Your task to perform on an android device: turn on improve location accuracy Image 0: 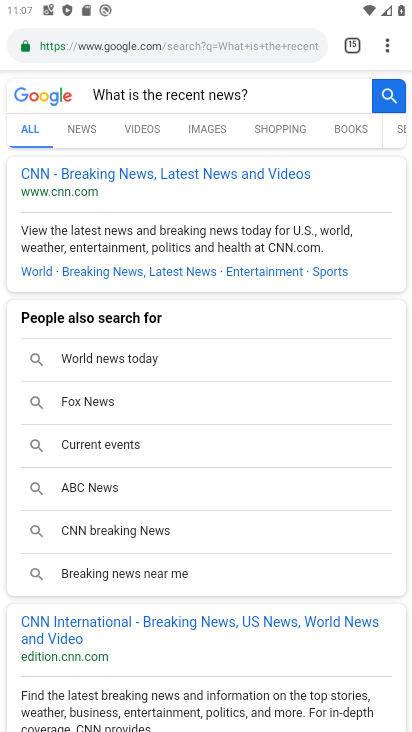
Step 0: press home button
Your task to perform on an android device: turn on improve location accuracy Image 1: 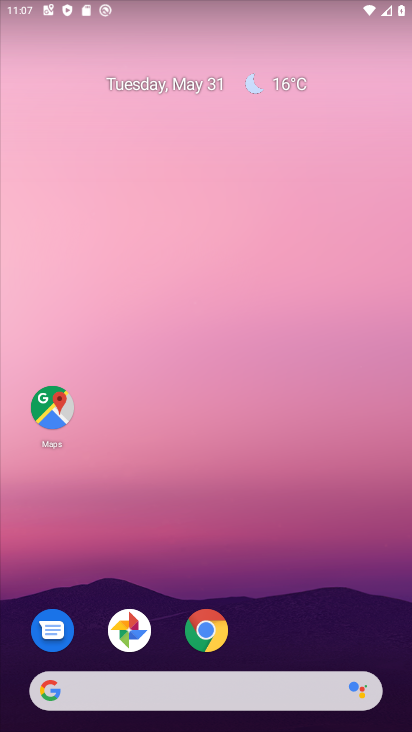
Step 1: drag from (293, 627) to (323, 201)
Your task to perform on an android device: turn on improve location accuracy Image 2: 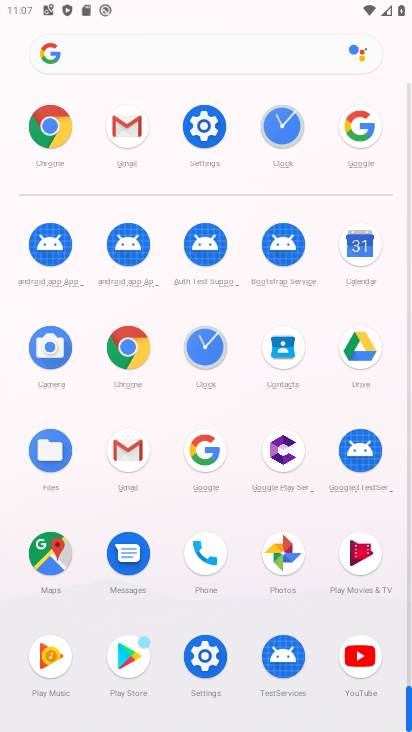
Step 2: click (196, 120)
Your task to perform on an android device: turn on improve location accuracy Image 3: 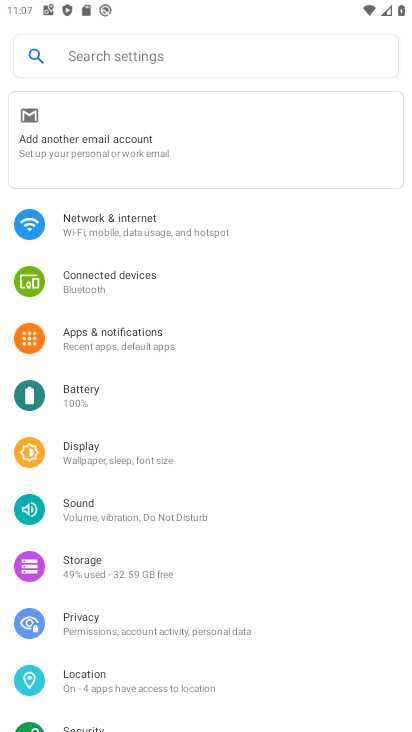
Step 3: drag from (127, 628) to (135, 462)
Your task to perform on an android device: turn on improve location accuracy Image 4: 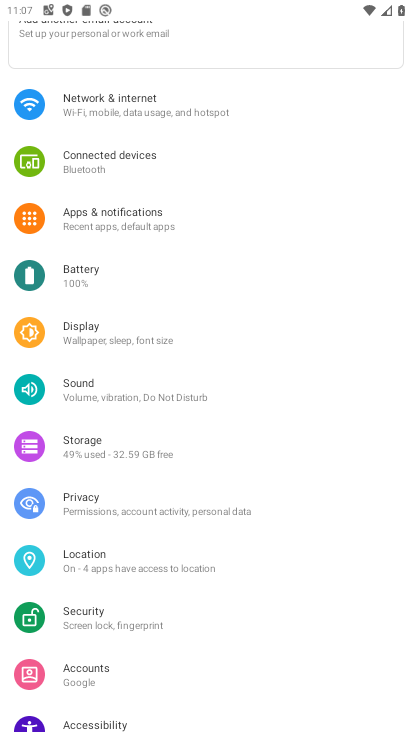
Step 4: click (106, 555)
Your task to perform on an android device: turn on improve location accuracy Image 5: 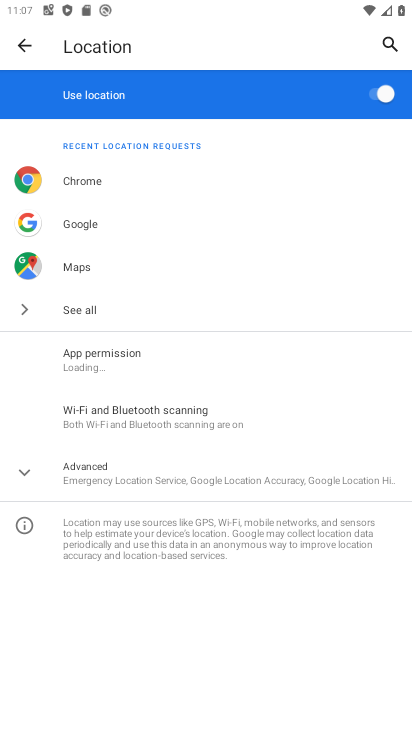
Step 5: click (135, 471)
Your task to perform on an android device: turn on improve location accuracy Image 6: 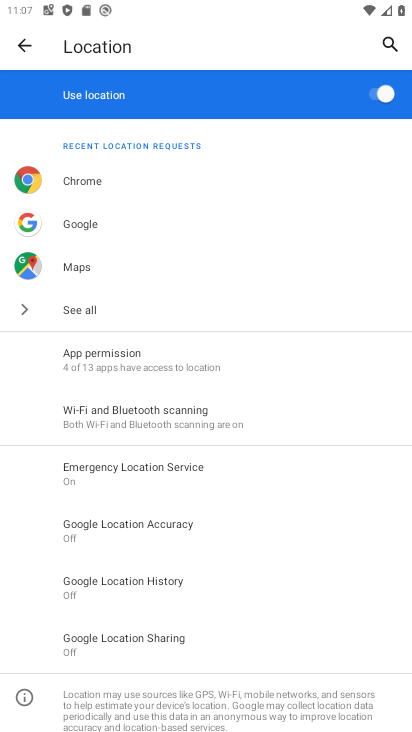
Step 6: click (179, 534)
Your task to perform on an android device: turn on improve location accuracy Image 7: 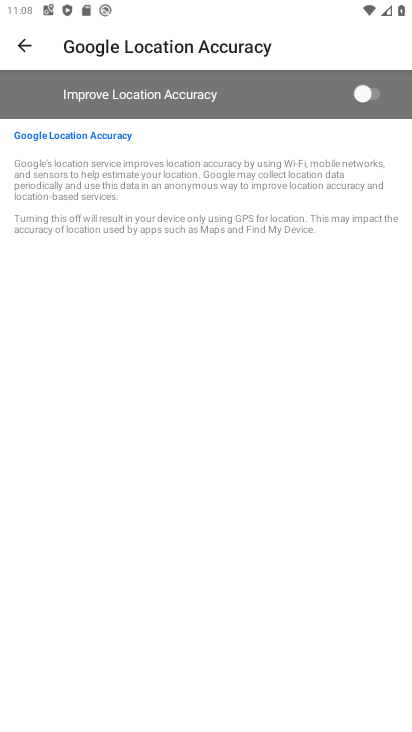
Step 7: click (362, 89)
Your task to perform on an android device: turn on improve location accuracy Image 8: 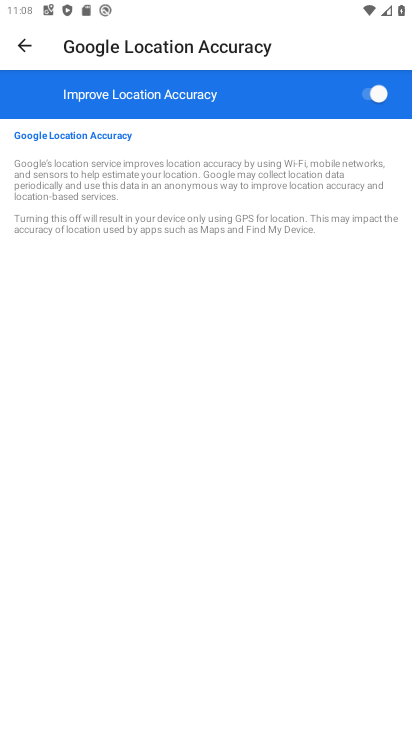
Step 8: task complete